Your task to perform on an android device: check storage Image 0: 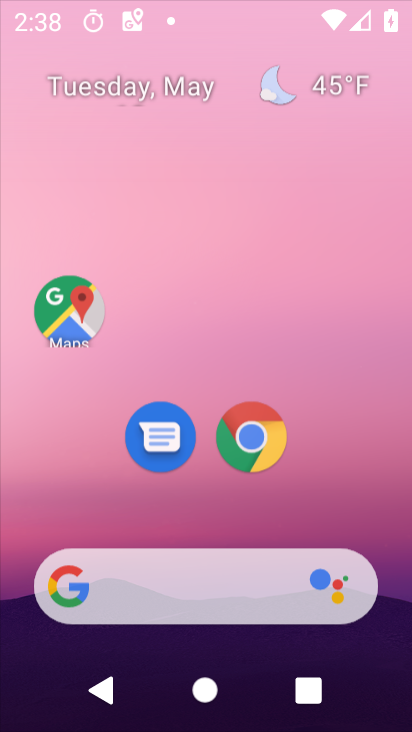
Step 0: drag from (165, 435) to (275, 33)
Your task to perform on an android device: check storage Image 1: 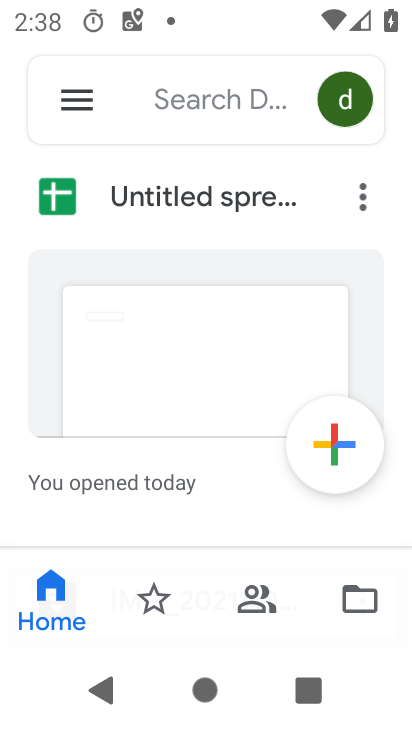
Step 1: press back button
Your task to perform on an android device: check storage Image 2: 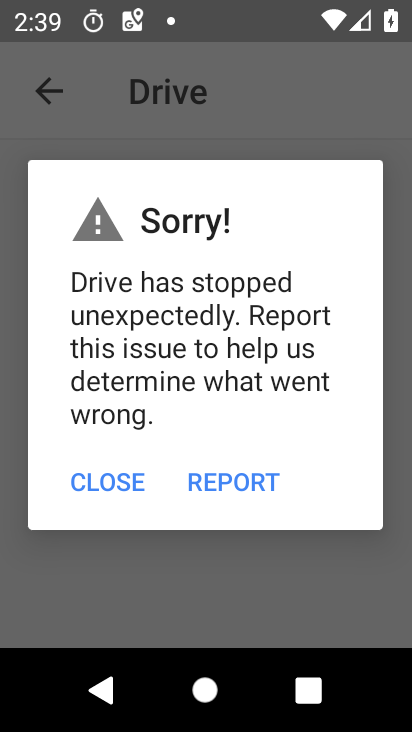
Step 2: press back button
Your task to perform on an android device: check storage Image 3: 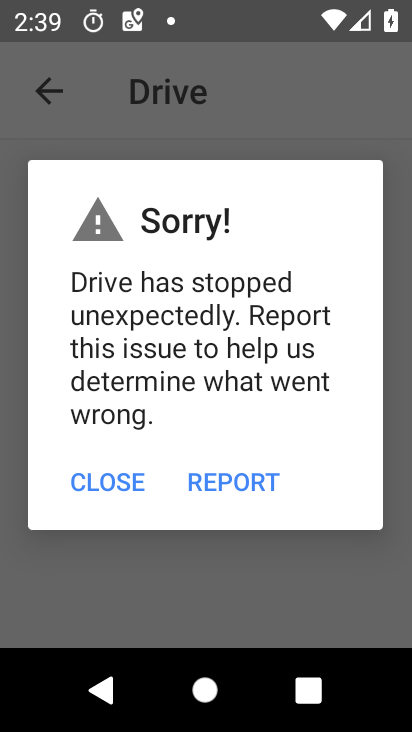
Step 3: press back button
Your task to perform on an android device: check storage Image 4: 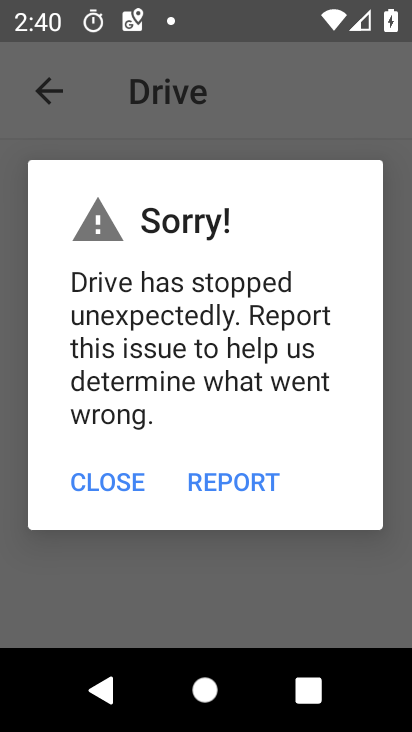
Step 4: press home button
Your task to perform on an android device: check storage Image 5: 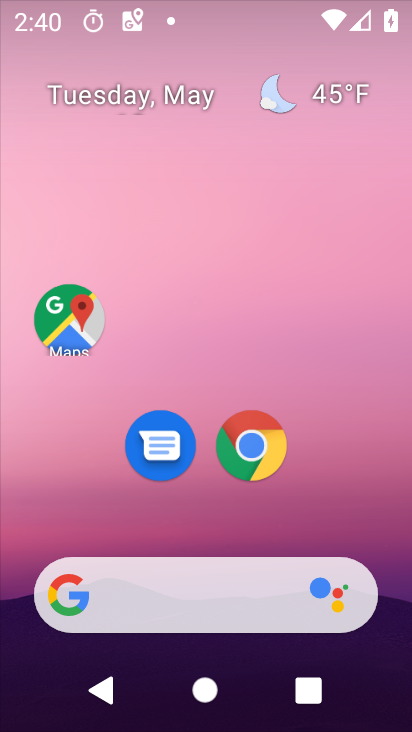
Step 5: drag from (208, 475) to (333, 5)
Your task to perform on an android device: check storage Image 6: 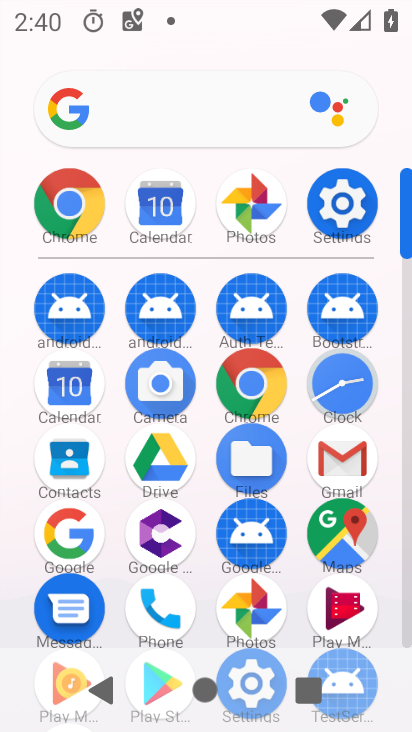
Step 6: click (333, 193)
Your task to perform on an android device: check storage Image 7: 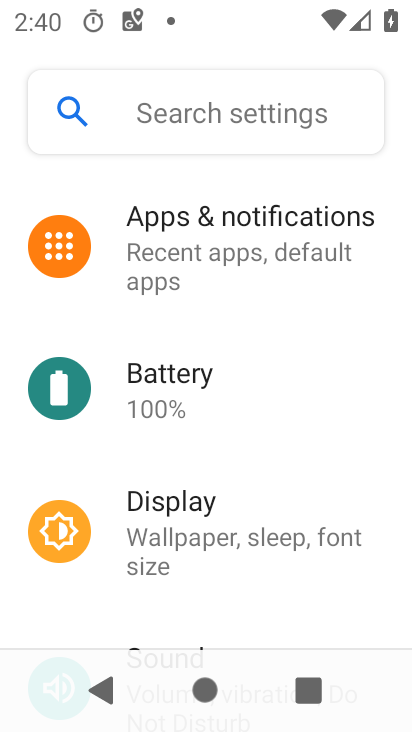
Step 7: drag from (238, 239) to (177, 634)
Your task to perform on an android device: check storage Image 8: 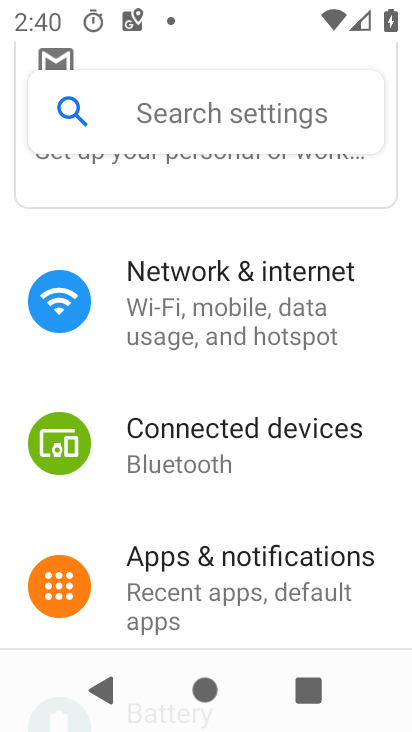
Step 8: drag from (204, 245) to (159, 646)
Your task to perform on an android device: check storage Image 9: 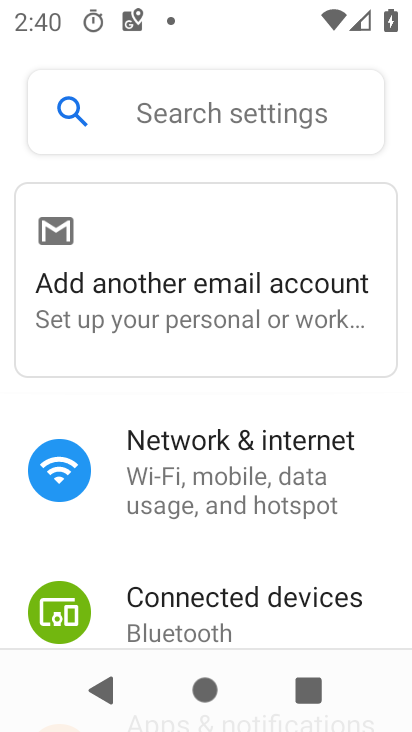
Step 9: drag from (171, 635) to (290, 162)
Your task to perform on an android device: check storage Image 10: 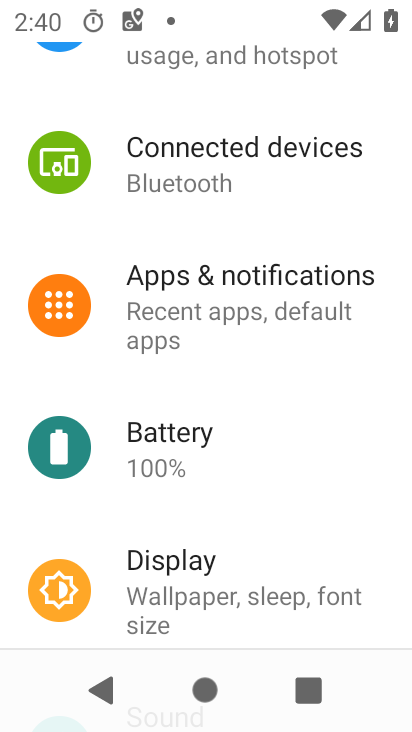
Step 10: drag from (200, 562) to (322, 147)
Your task to perform on an android device: check storage Image 11: 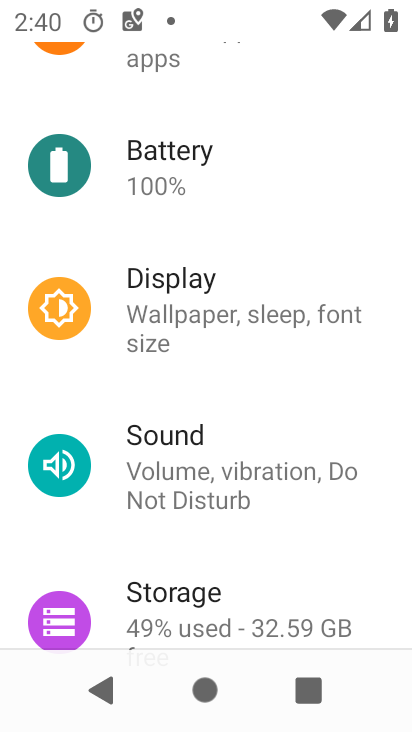
Step 11: click (186, 610)
Your task to perform on an android device: check storage Image 12: 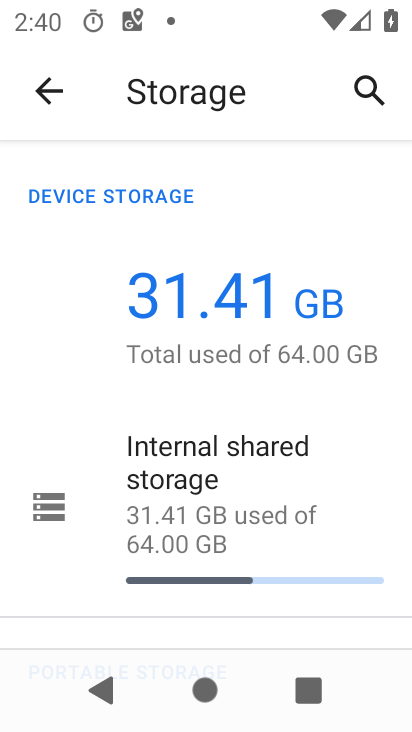
Step 12: task complete